Your task to perform on an android device: turn vacation reply on in the gmail app Image 0: 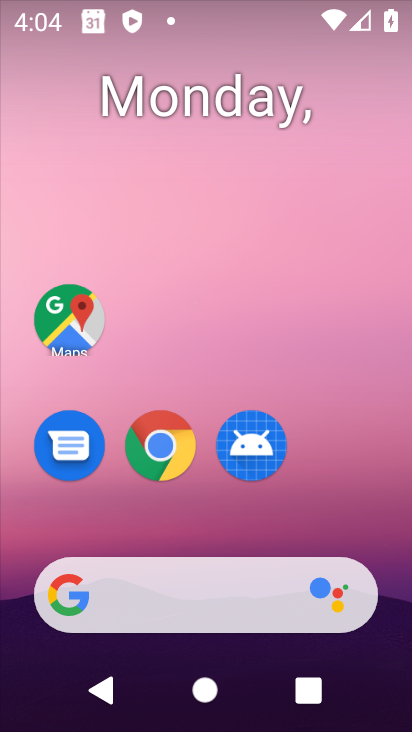
Step 0: drag from (291, 488) to (390, 96)
Your task to perform on an android device: turn vacation reply on in the gmail app Image 1: 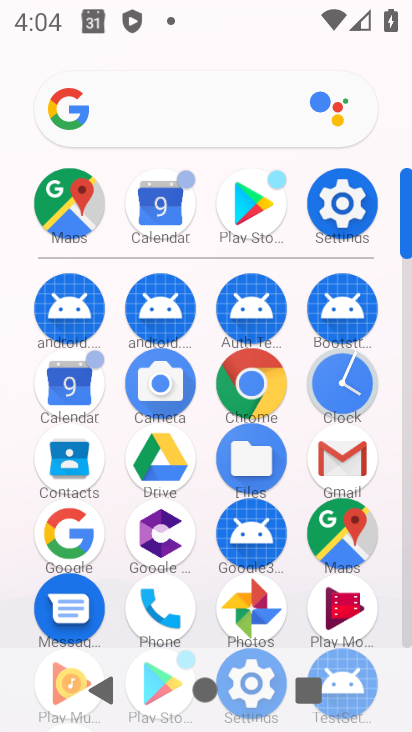
Step 1: click (345, 470)
Your task to perform on an android device: turn vacation reply on in the gmail app Image 2: 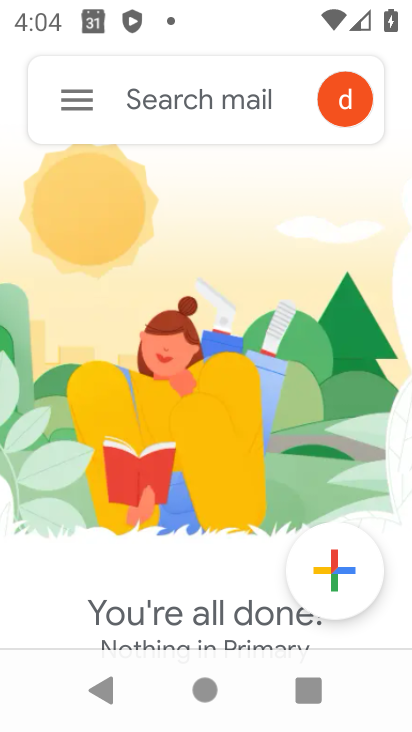
Step 2: click (89, 101)
Your task to perform on an android device: turn vacation reply on in the gmail app Image 3: 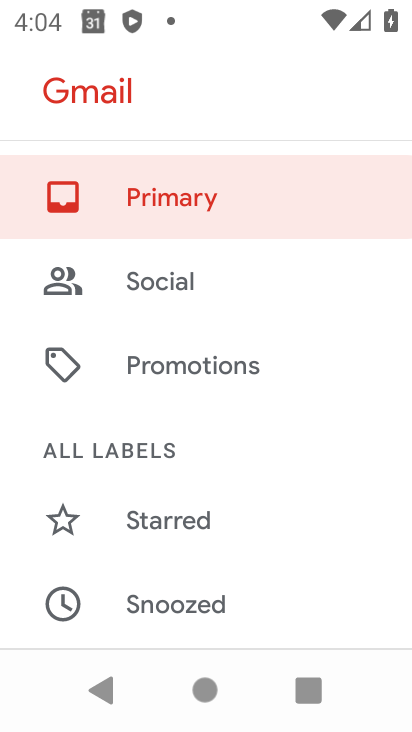
Step 3: drag from (169, 591) to (231, 370)
Your task to perform on an android device: turn vacation reply on in the gmail app Image 4: 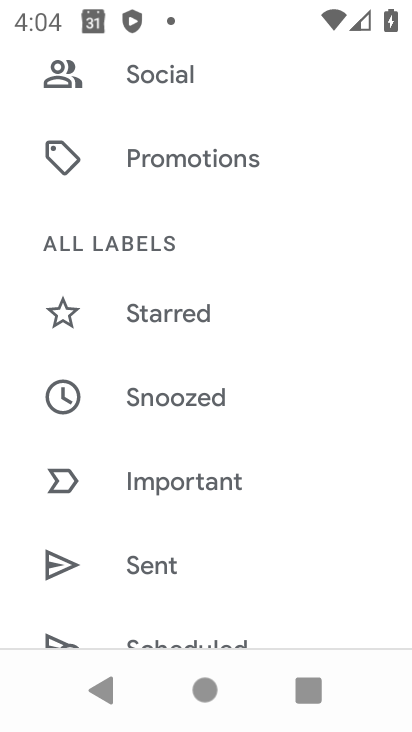
Step 4: drag from (187, 592) to (230, 253)
Your task to perform on an android device: turn vacation reply on in the gmail app Image 5: 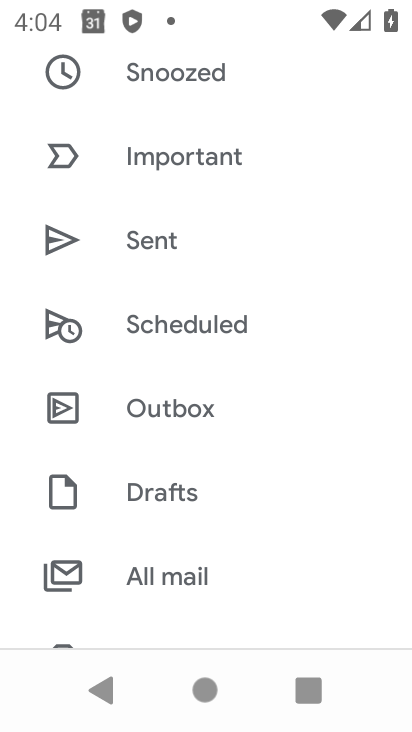
Step 5: drag from (276, 596) to (243, 128)
Your task to perform on an android device: turn vacation reply on in the gmail app Image 6: 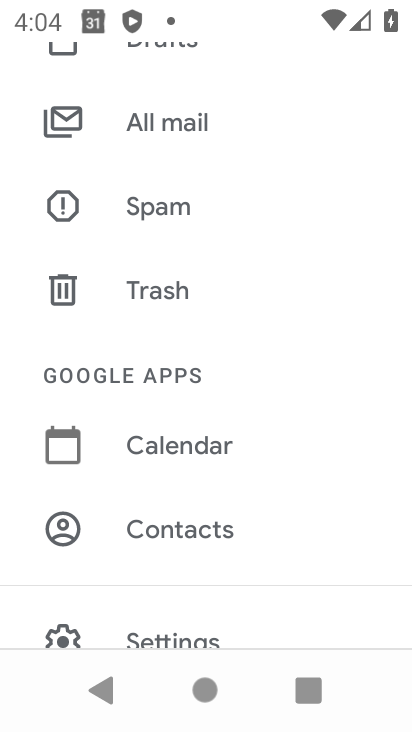
Step 6: drag from (201, 617) to (251, 209)
Your task to perform on an android device: turn vacation reply on in the gmail app Image 7: 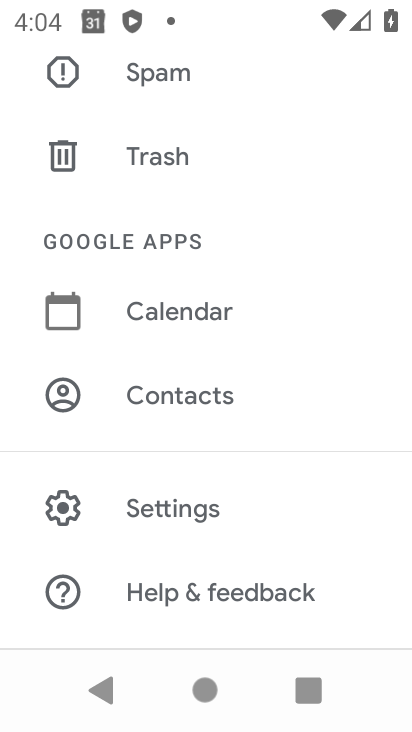
Step 7: click (198, 523)
Your task to perform on an android device: turn vacation reply on in the gmail app Image 8: 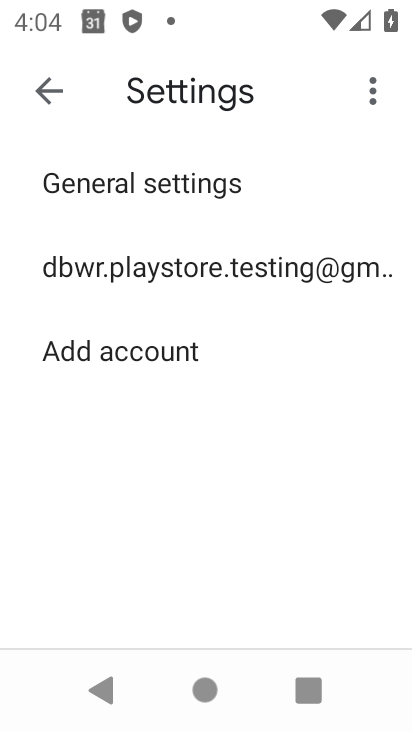
Step 8: click (203, 254)
Your task to perform on an android device: turn vacation reply on in the gmail app Image 9: 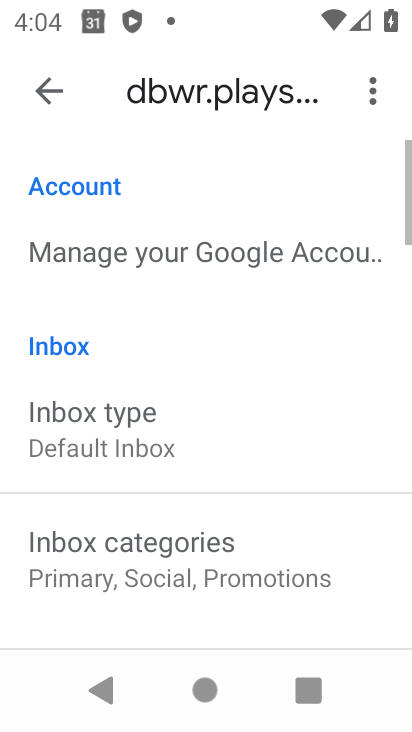
Step 9: drag from (257, 606) to (265, 269)
Your task to perform on an android device: turn vacation reply on in the gmail app Image 10: 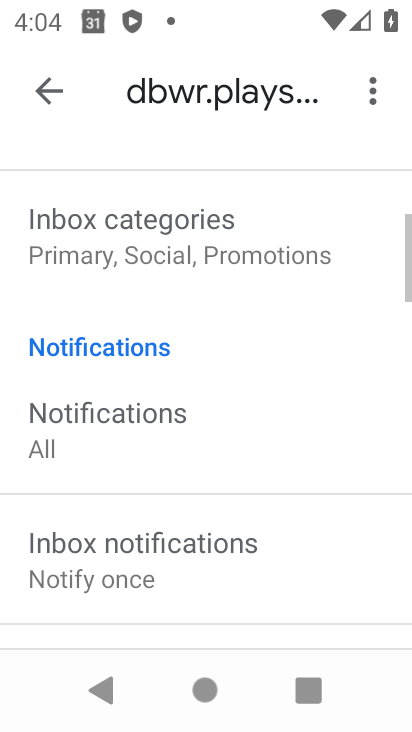
Step 10: drag from (295, 589) to (271, 227)
Your task to perform on an android device: turn vacation reply on in the gmail app Image 11: 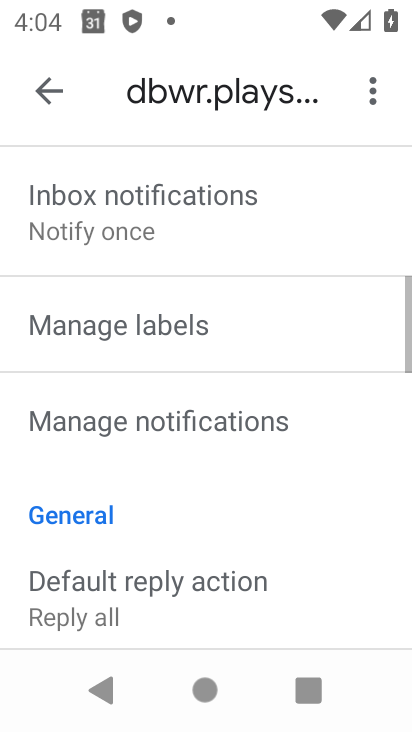
Step 11: drag from (302, 529) to (275, 183)
Your task to perform on an android device: turn vacation reply on in the gmail app Image 12: 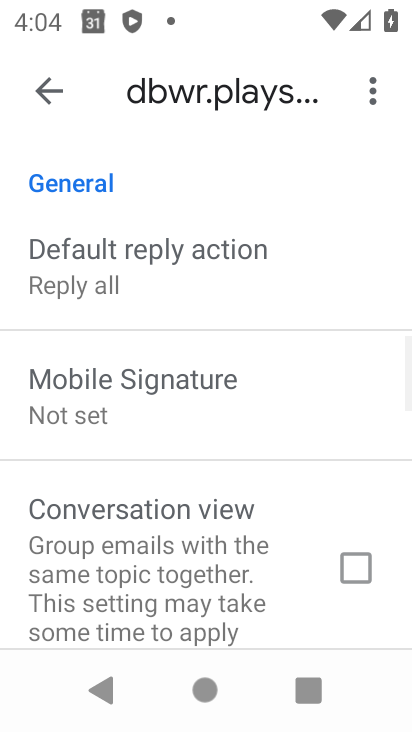
Step 12: drag from (281, 560) to (251, 246)
Your task to perform on an android device: turn vacation reply on in the gmail app Image 13: 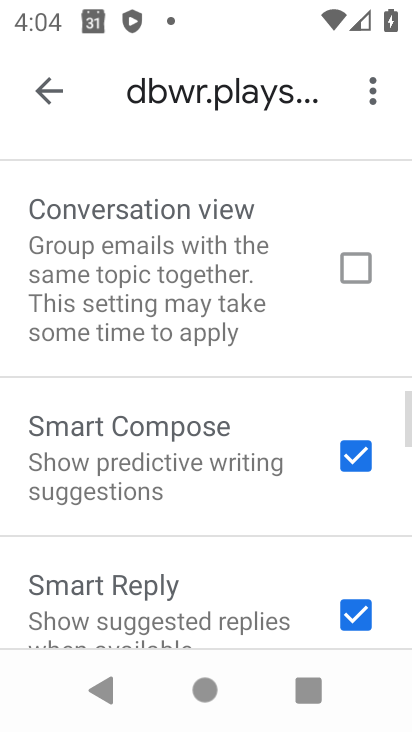
Step 13: drag from (218, 631) to (202, 311)
Your task to perform on an android device: turn vacation reply on in the gmail app Image 14: 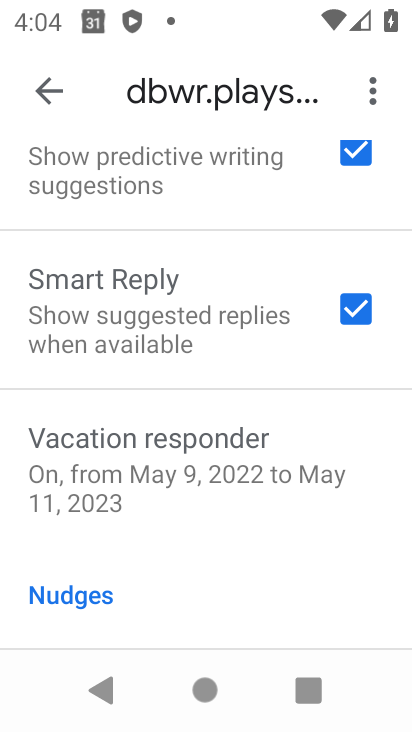
Step 14: click (213, 473)
Your task to perform on an android device: turn vacation reply on in the gmail app Image 15: 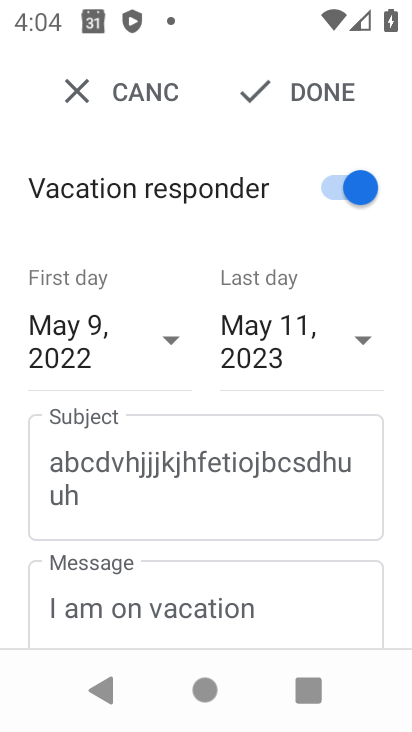
Step 15: click (273, 99)
Your task to perform on an android device: turn vacation reply on in the gmail app Image 16: 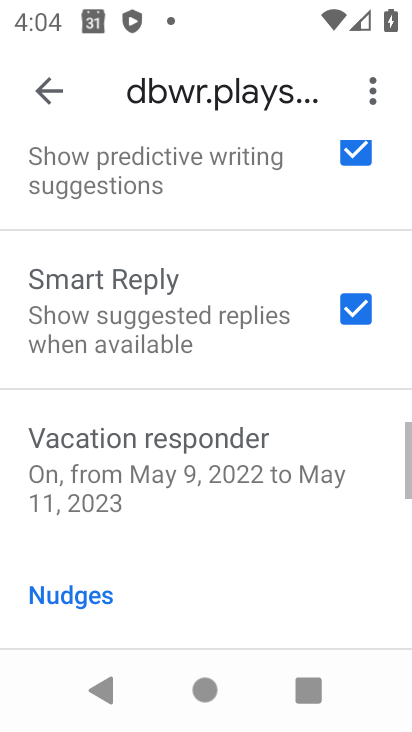
Step 16: task complete